Your task to perform on an android device: toggle wifi Image 0: 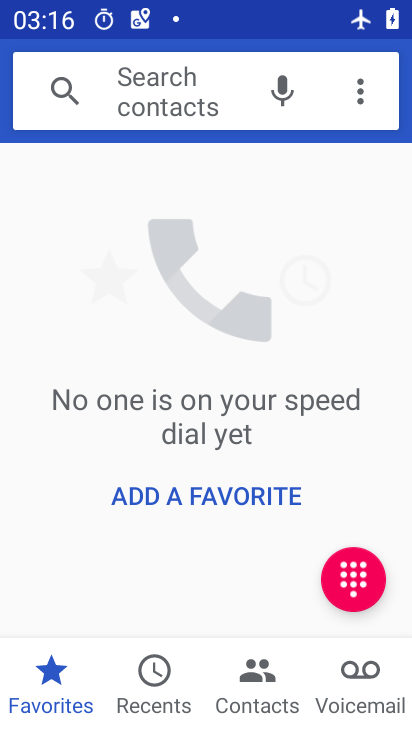
Step 0: press home button
Your task to perform on an android device: toggle wifi Image 1: 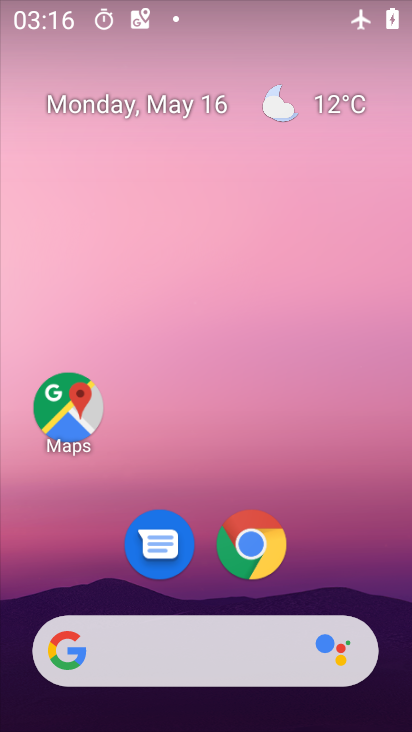
Step 1: drag from (217, 727) to (228, 105)
Your task to perform on an android device: toggle wifi Image 2: 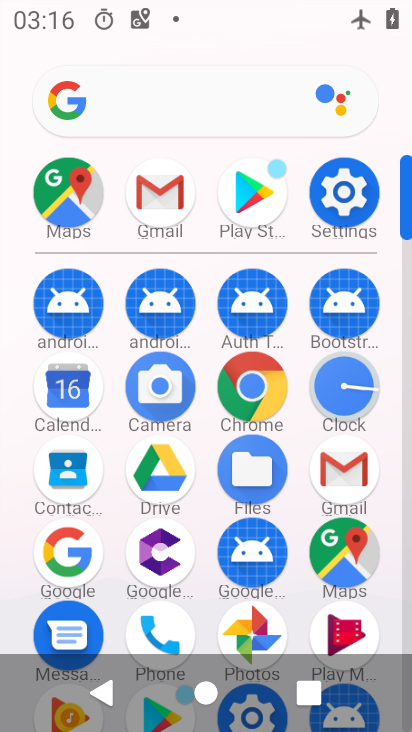
Step 2: click (343, 188)
Your task to perform on an android device: toggle wifi Image 3: 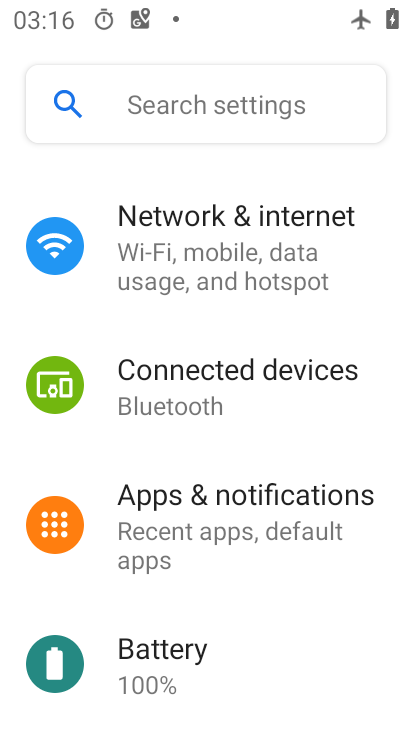
Step 3: click (232, 230)
Your task to perform on an android device: toggle wifi Image 4: 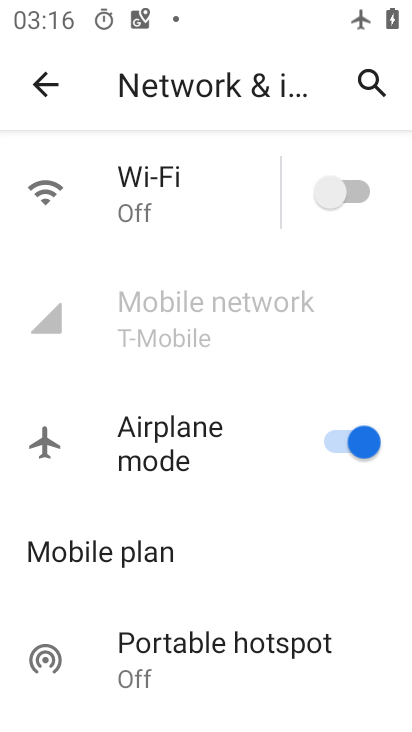
Step 4: task complete